Your task to perform on an android device: manage bookmarks in the chrome app Image 0: 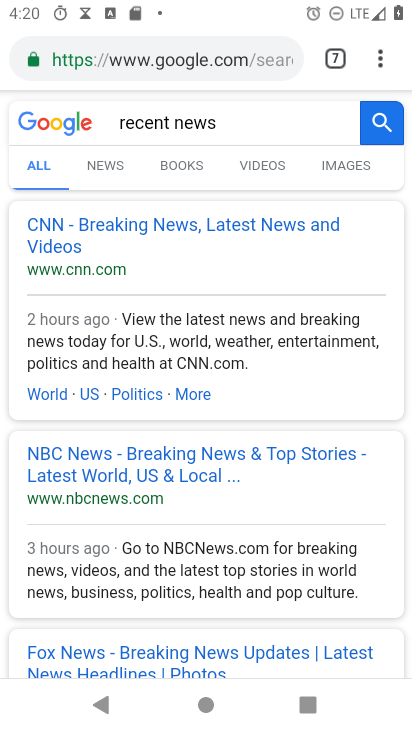
Step 0: drag from (318, 341) to (337, 97)
Your task to perform on an android device: manage bookmarks in the chrome app Image 1: 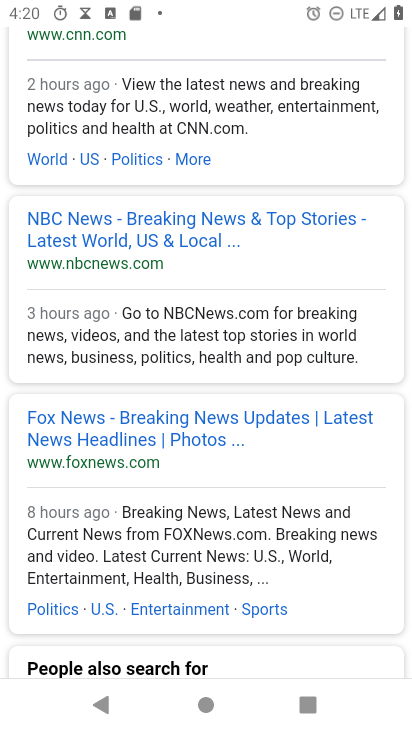
Step 1: press home button
Your task to perform on an android device: manage bookmarks in the chrome app Image 2: 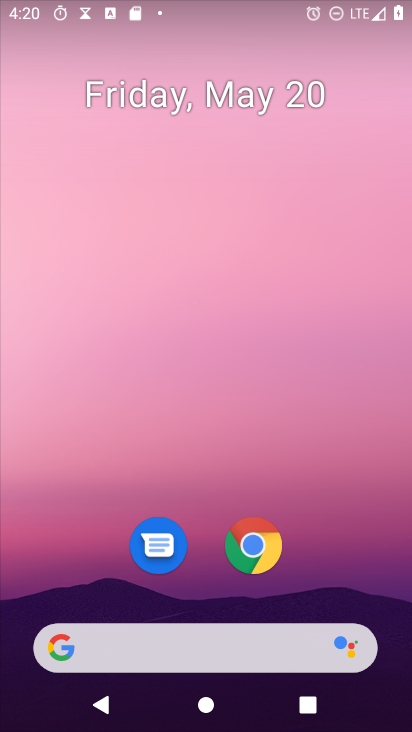
Step 2: drag from (314, 642) to (345, 1)
Your task to perform on an android device: manage bookmarks in the chrome app Image 3: 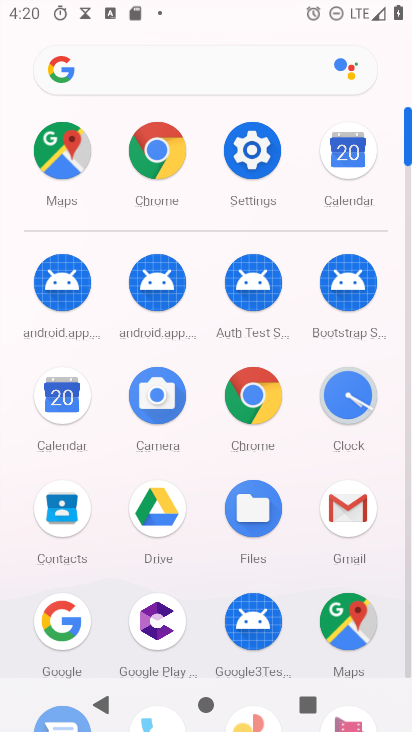
Step 3: click (269, 398)
Your task to perform on an android device: manage bookmarks in the chrome app Image 4: 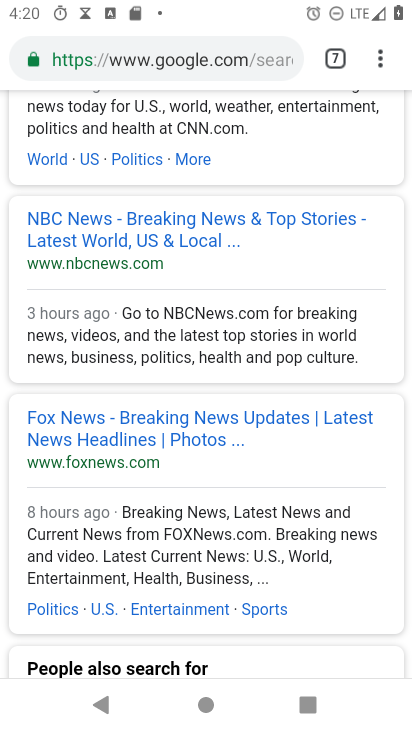
Step 4: click (375, 58)
Your task to perform on an android device: manage bookmarks in the chrome app Image 5: 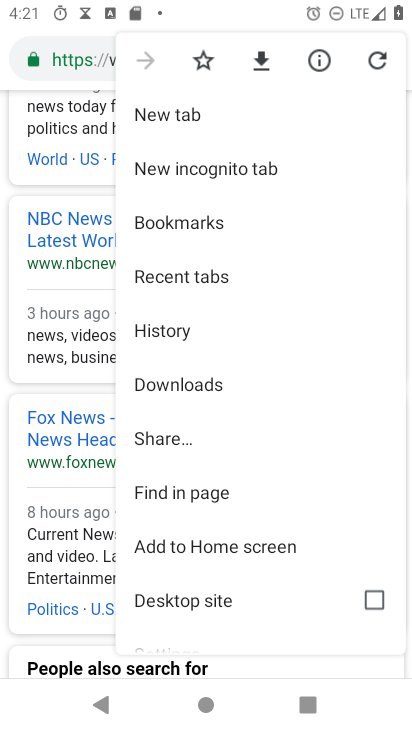
Step 5: click (217, 211)
Your task to perform on an android device: manage bookmarks in the chrome app Image 6: 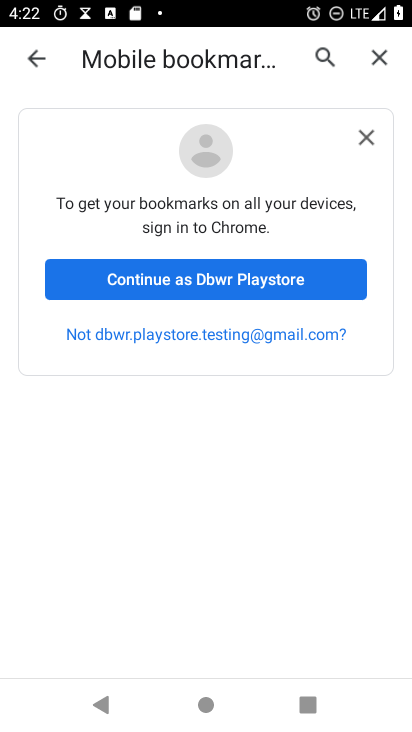
Step 6: task complete